Your task to perform on an android device: manage bookmarks in the chrome app Image 0: 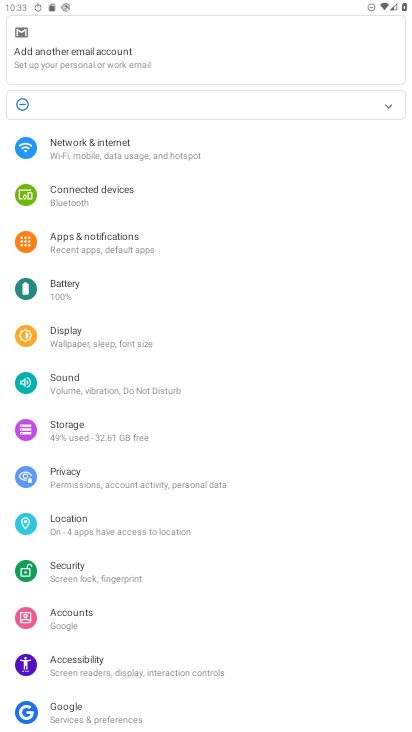
Step 0: press home button
Your task to perform on an android device: manage bookmarks in the chrome app Image 1: 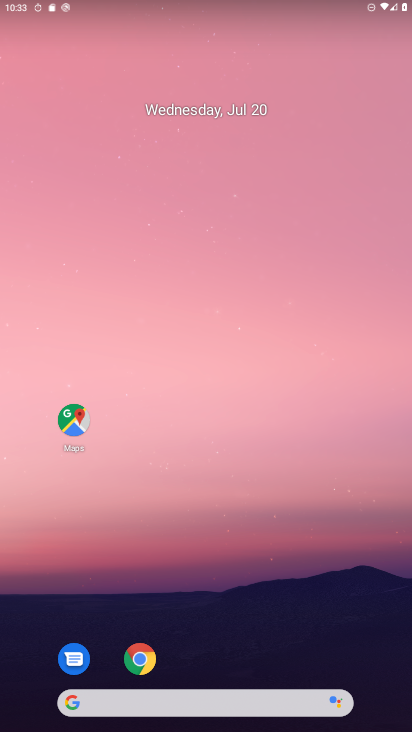
Step 1: click (140, 655)
Your task to perform on an android device: manage bookmarks in the chrome app Image 2: 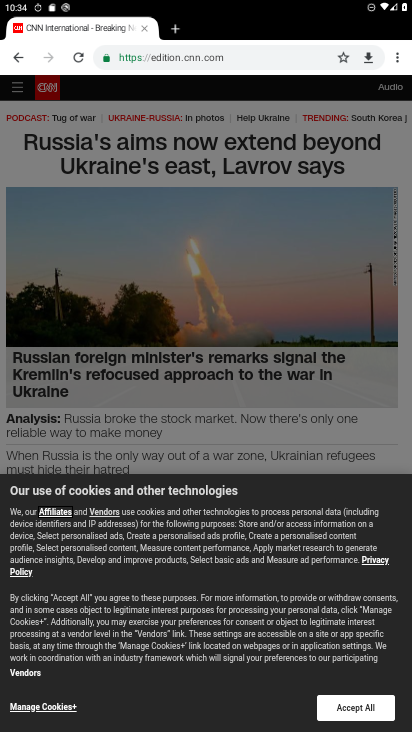
Step 2: drag from (399, 45) to (287, 114)
Your task to perform on an android device: manage bookmarks in the chrome app Image 3: 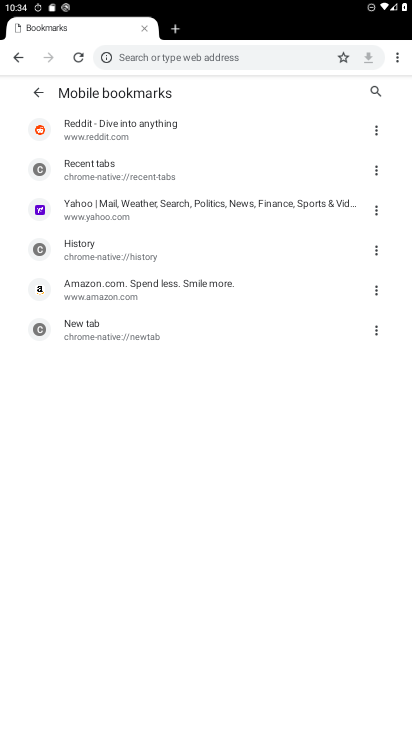
Step 3: click (380, 323)
Your task to perform on an android device: manage bookmarks in the chrome app Image 4: 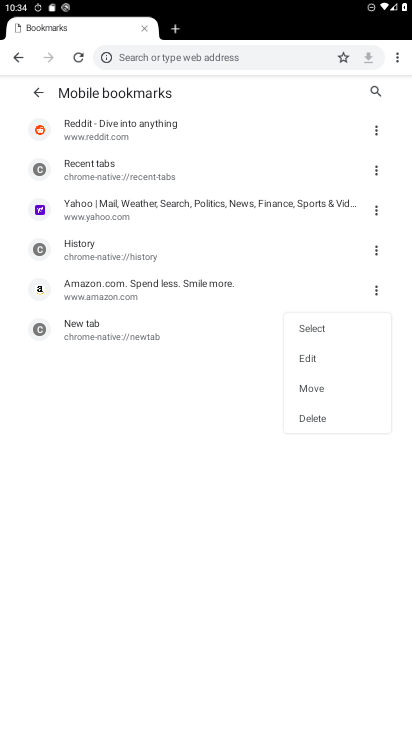
Step 4: click (318, 418)
Your task to perform on an android device: manage bookmarks in the chrome app Image 5: 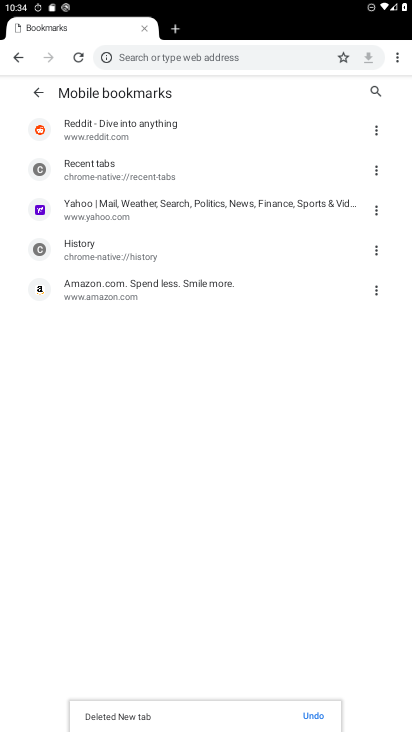
Step 5: task complete